Your task to perform on an android device: uninstall "Google Docs" Image 0: 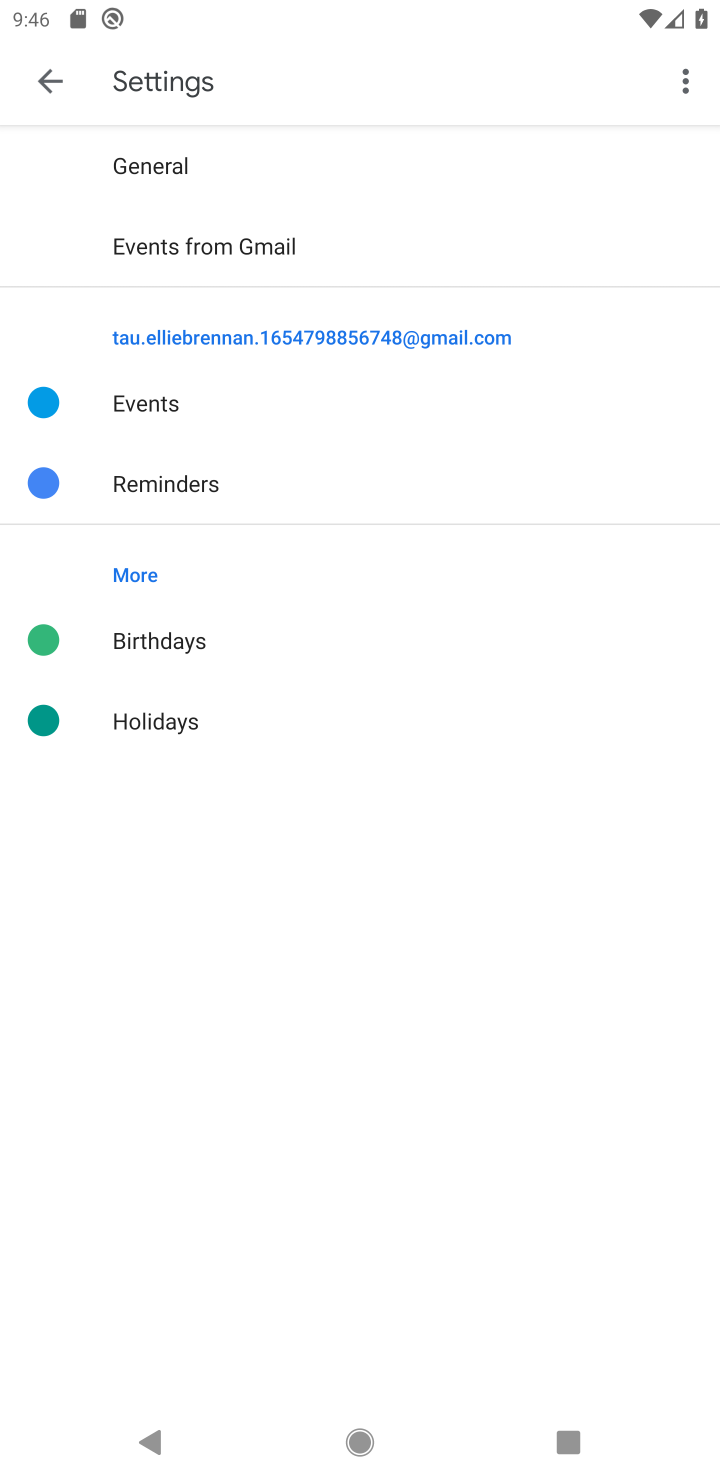
Step 0: press home button
Your task to perform on an android device: uninstall "Google Docs" Image 1: 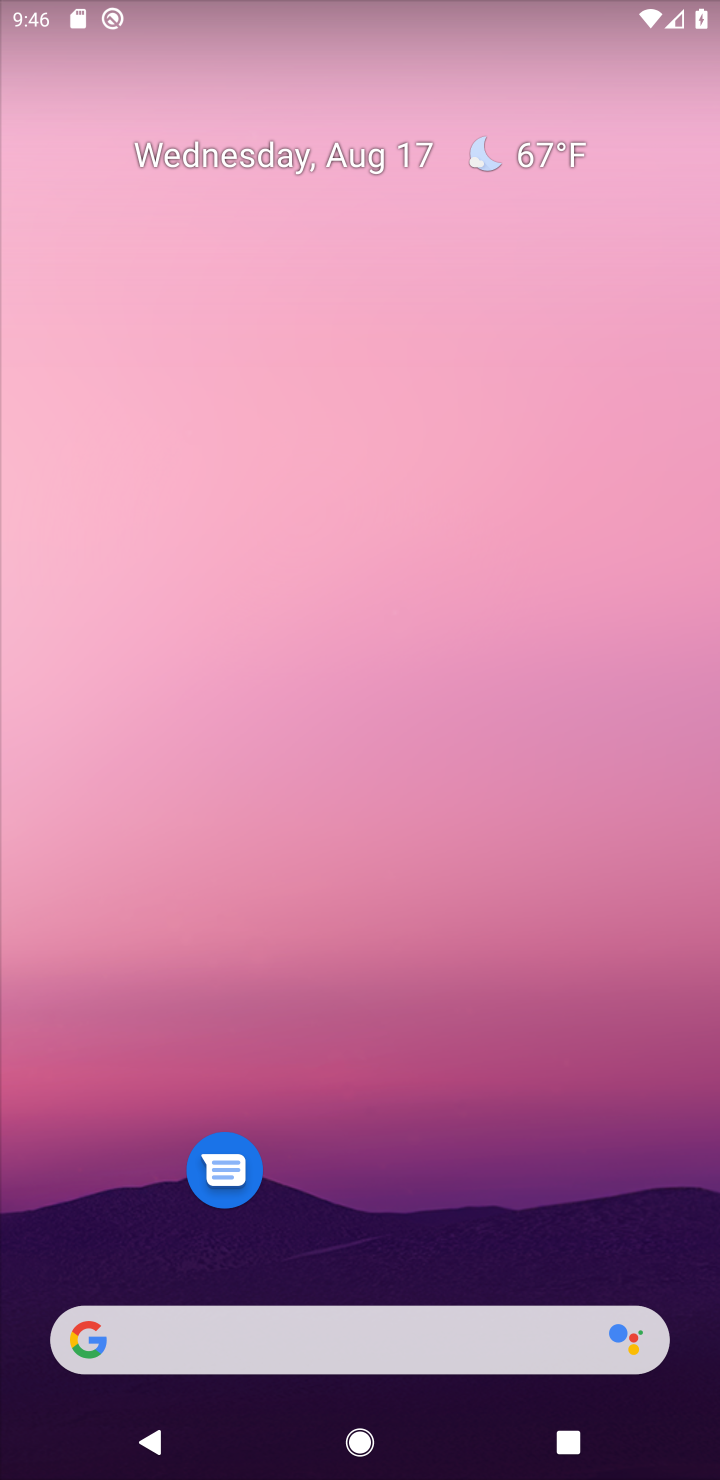
Step 1: drag from (369, 1256) to (418, 166)
Your task to perform on an android device: uninstall "Google Docs" Image 2: 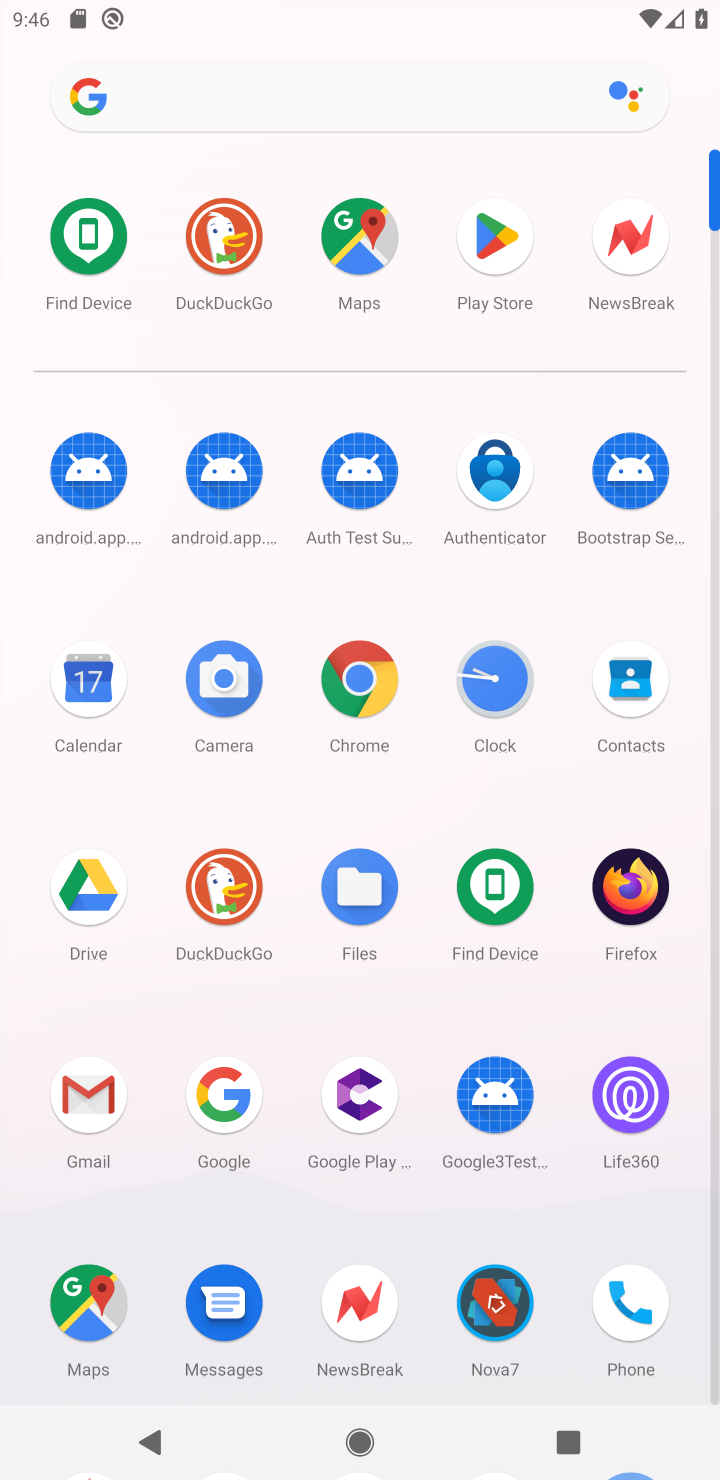
Step 2: click (482, 256)
Your task to perform on an android device: uninstall "Google Docs" Image 3: 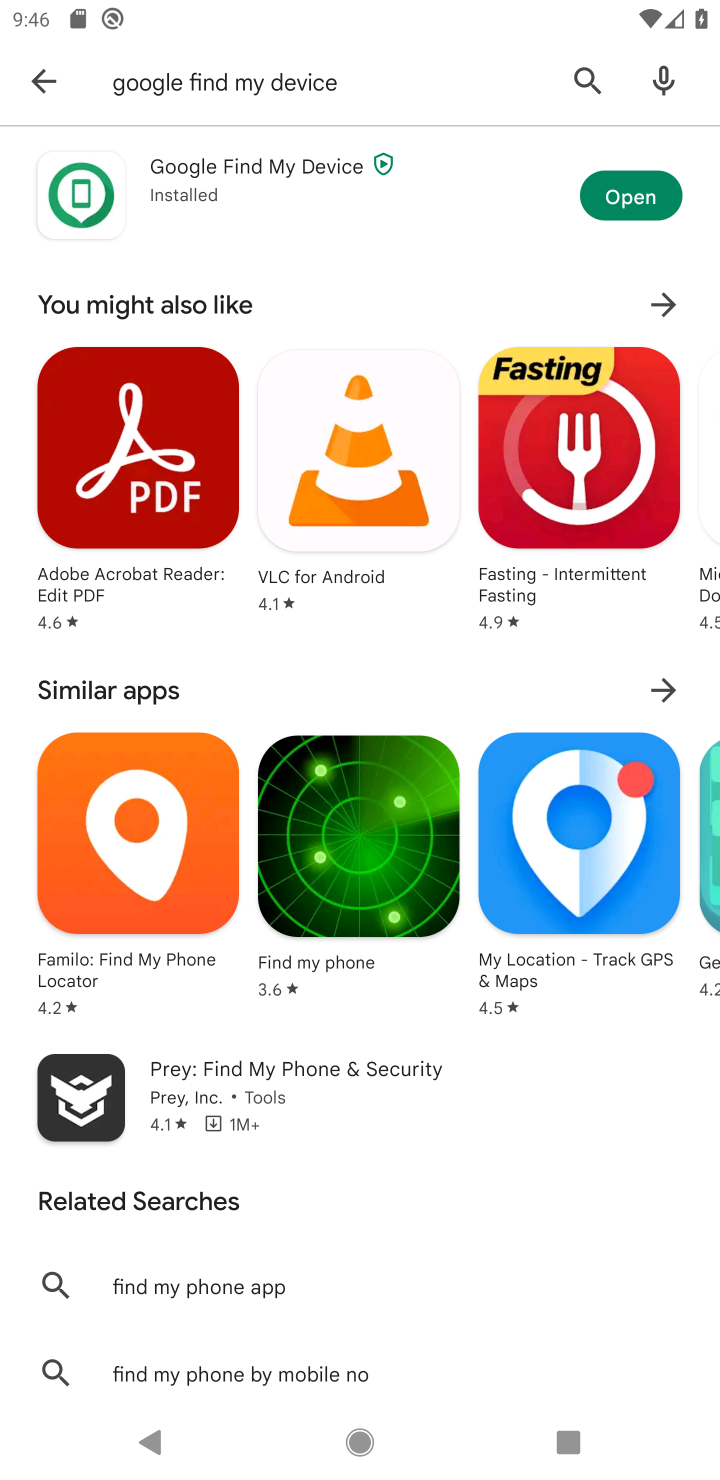
Step 3: click (44, 81)
Your task to perform on an android device: uninstall "Google Docs" Image 4: 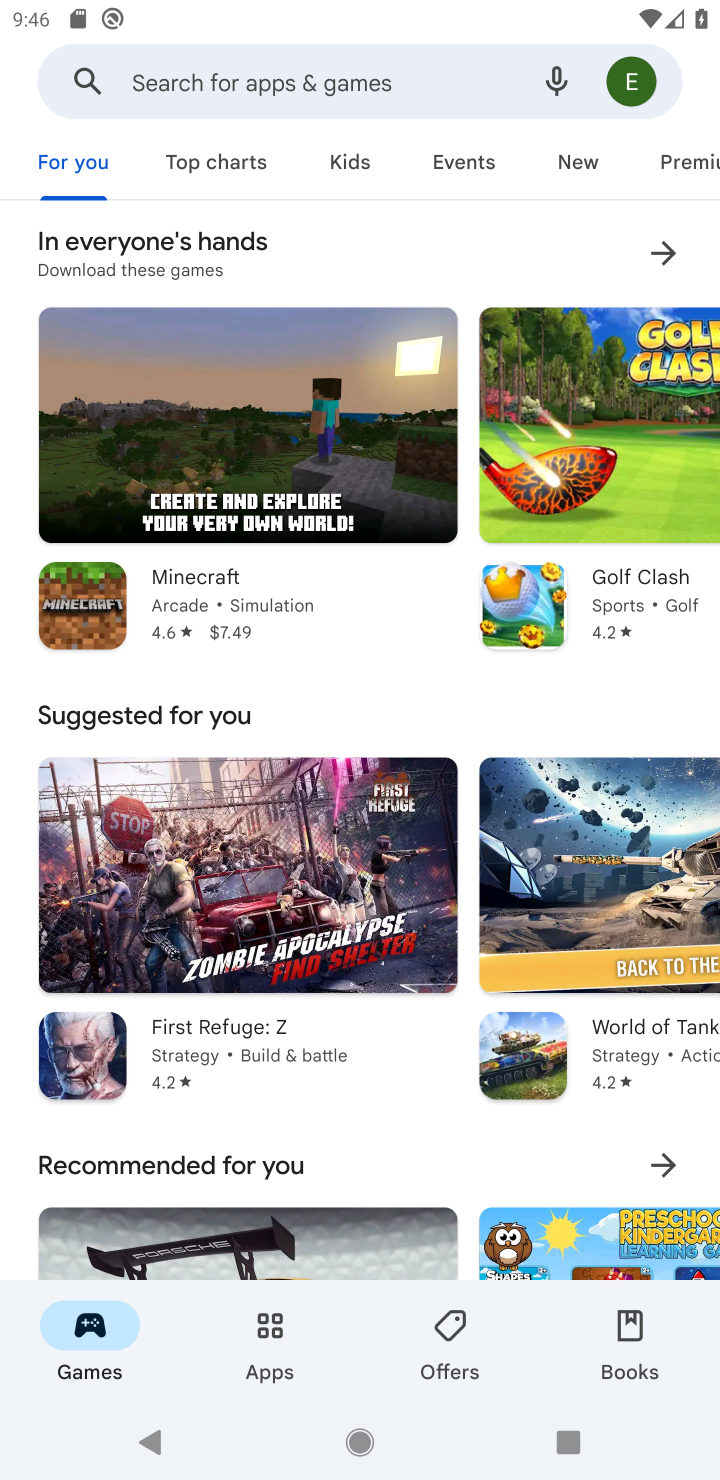
Step 4: click (186, 96)
Your task to perform on an android device: uninstall "Google Docs" Image 5: 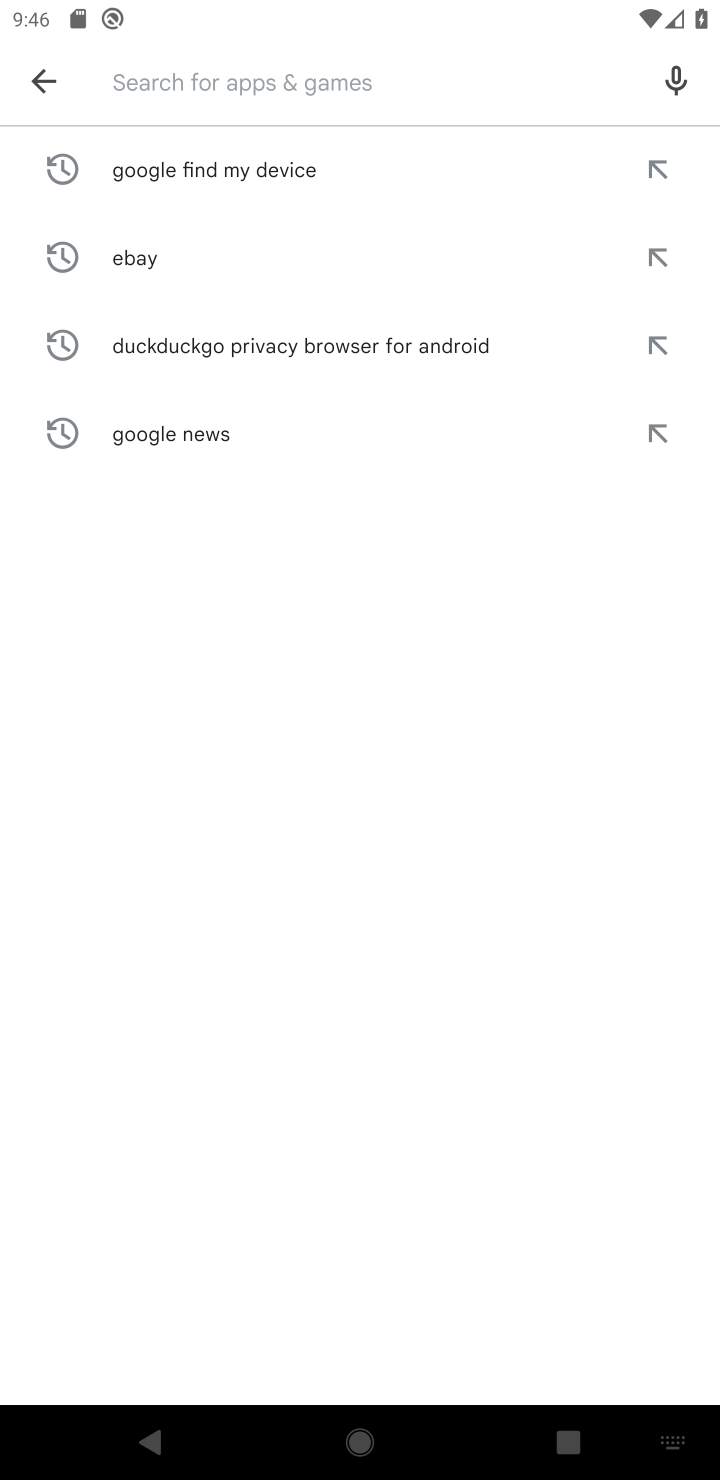
Step 5: type "Google Docs"
Your task to perform on an android device: uninstall "Google Docs" Image 6: 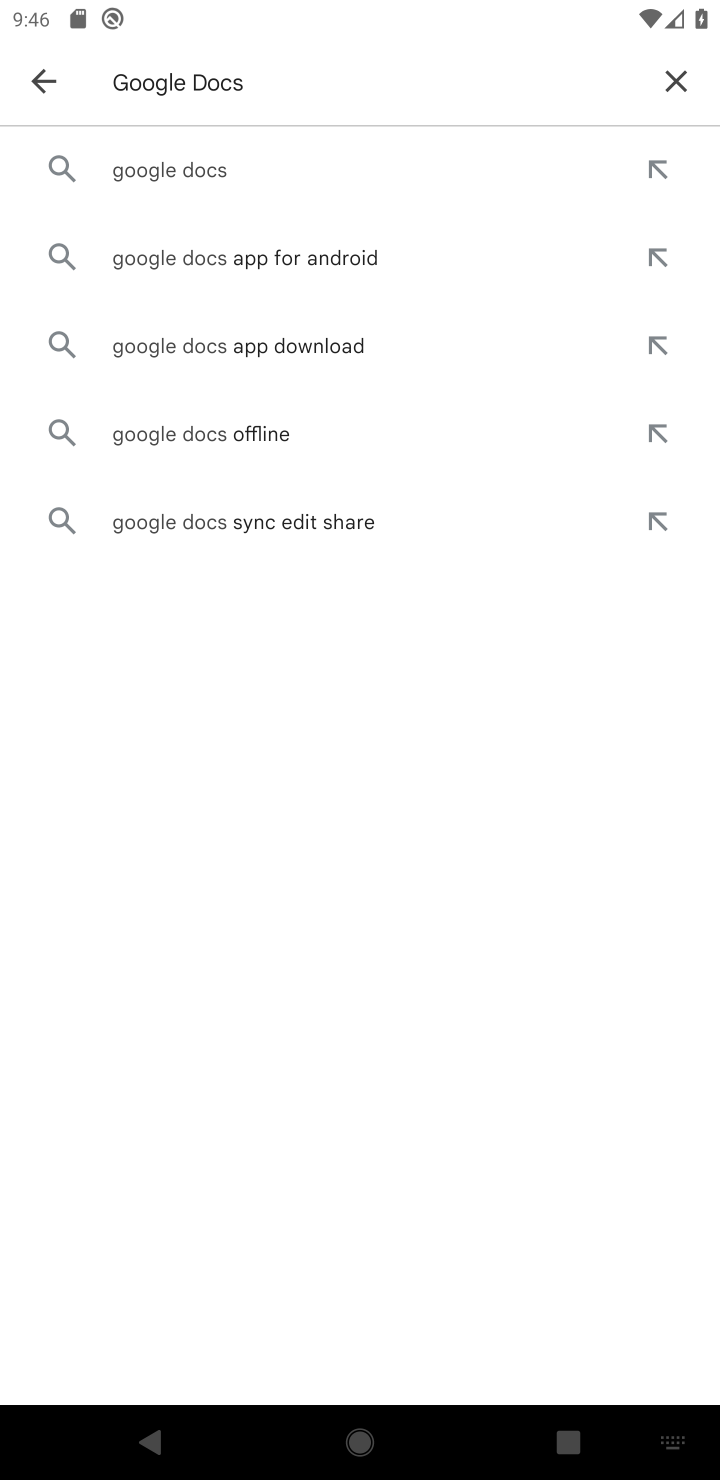
Step 6: click (181, 164)
Your task to perform on an android device: uninstall "Google Docs" Image 7: 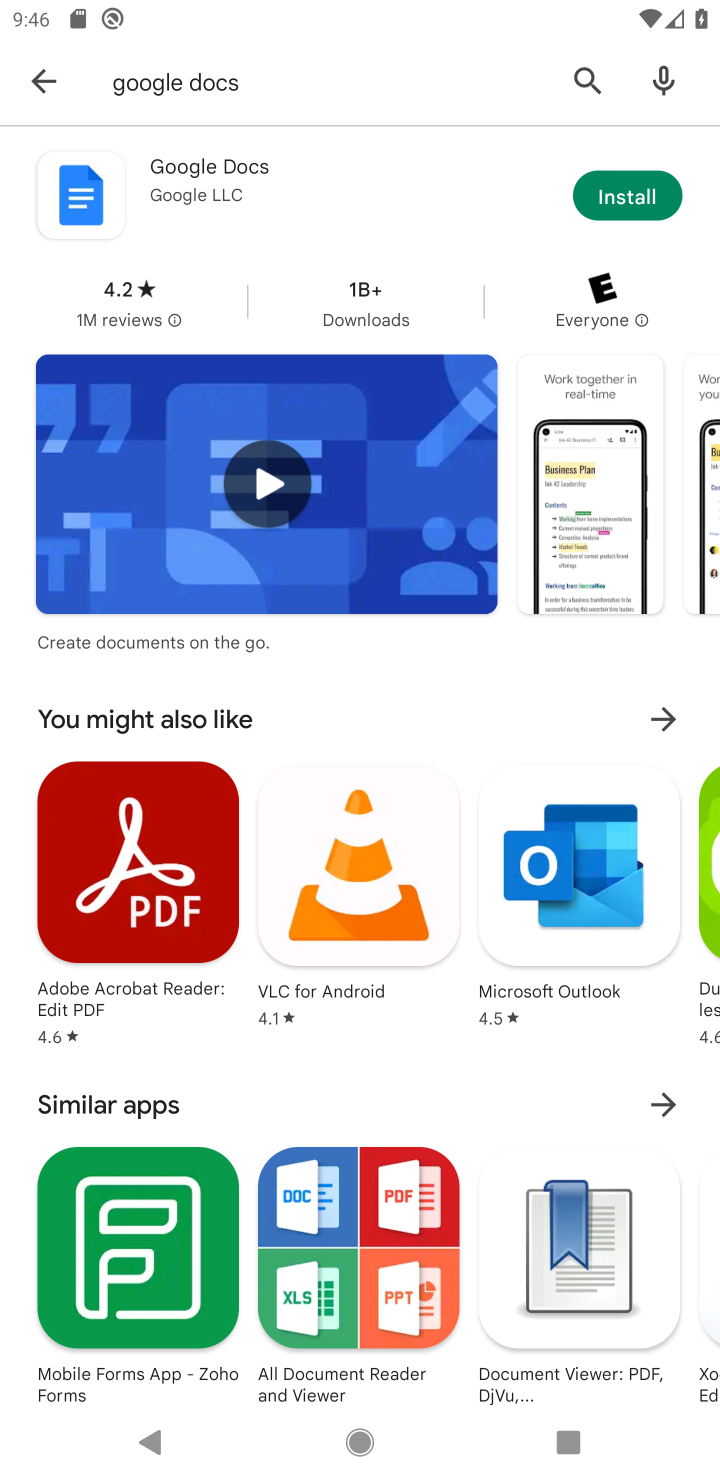
Step 7: task complete